Your task to perform on an android device: toggle javascript in the chrome app Image 0: 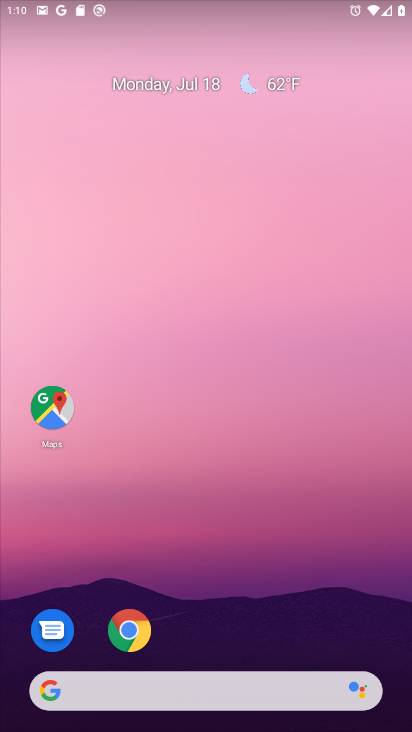
Step 0: click (127, 630)
Your task to perform on an android device: toggle javascript in the chrome app Image 1: 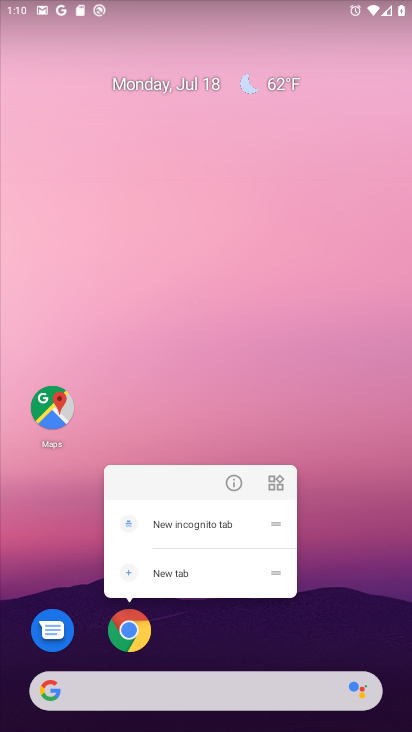
Step 1: click (127, 630)
Your task to perform on an android device: toggle javascript in the chrome app Image 2: 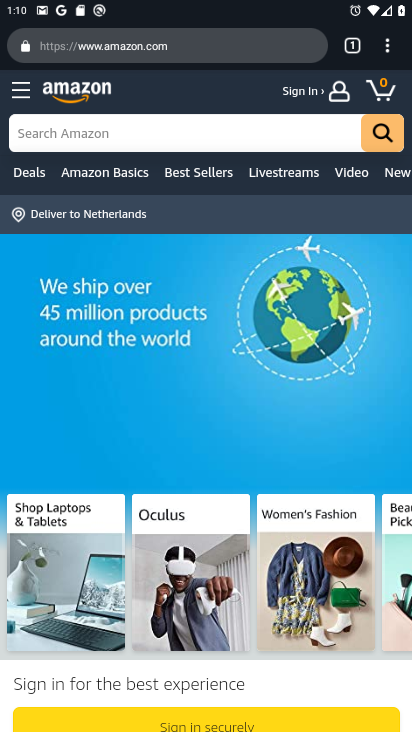
Step 2: click (385, 45)
Your task to perform on an android device: toggle javascript in the chrome app Image 3: 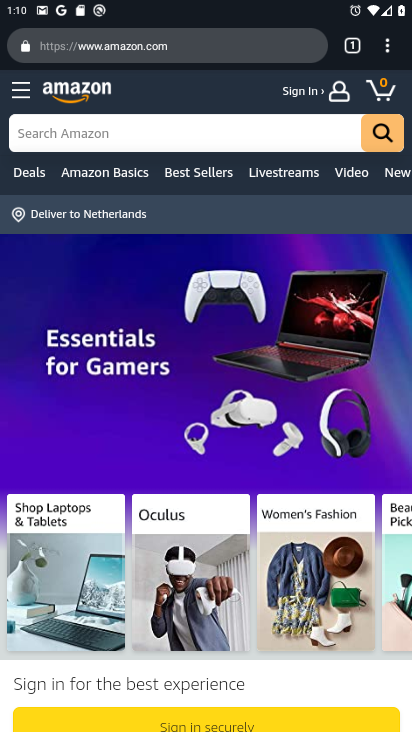
Step 3: click (384, 45)
Your task to perform on an android device: toggle javascript in the chrome app Image 4: 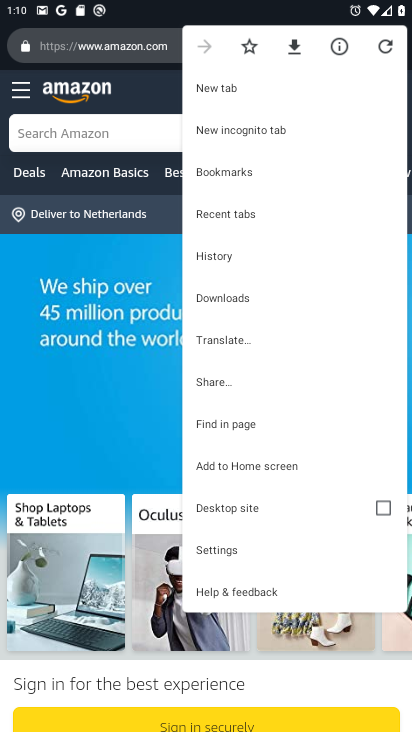
Step 4: click (203, 548)
Your task to perform on an android device: toggle javascript in the chrome app Image 5: 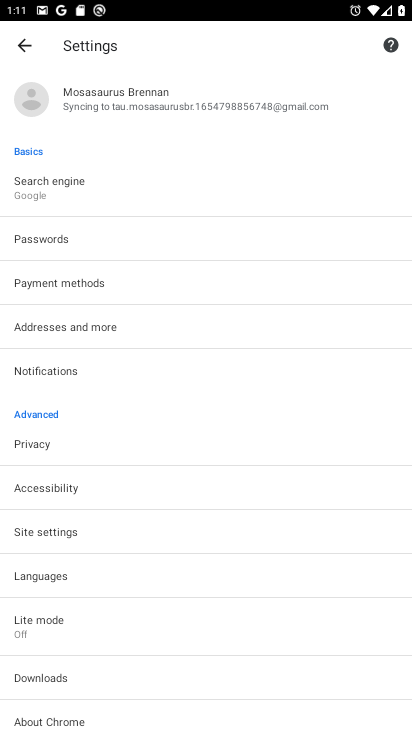
Step 5: click (63, 629)
Your task to perform on an android device: toggle javascript in the chrome app Image 6: 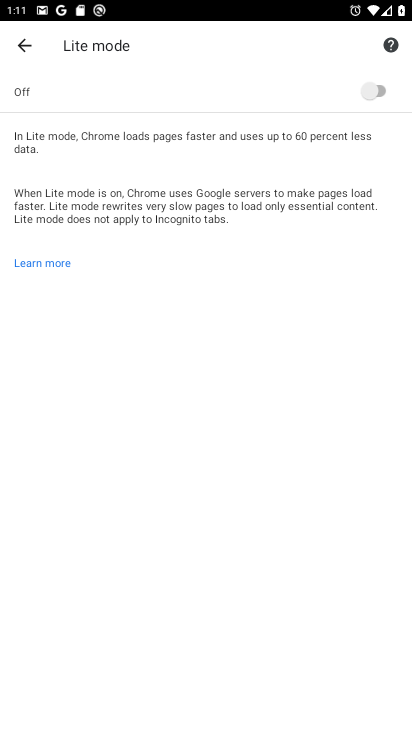
Step 6: click (21, 51)
Your task to perform on an android device: toggle javascript in the chrome app Image 7: 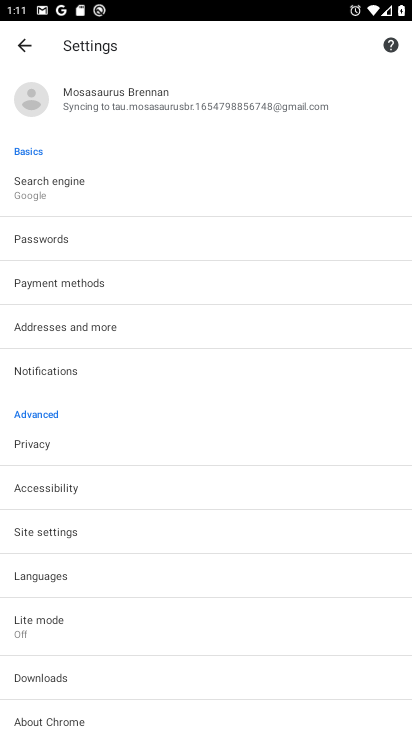
Step 7: click (47, 533)
Your task to perform on an android device: toggle javascript in the chrome app Image 8: 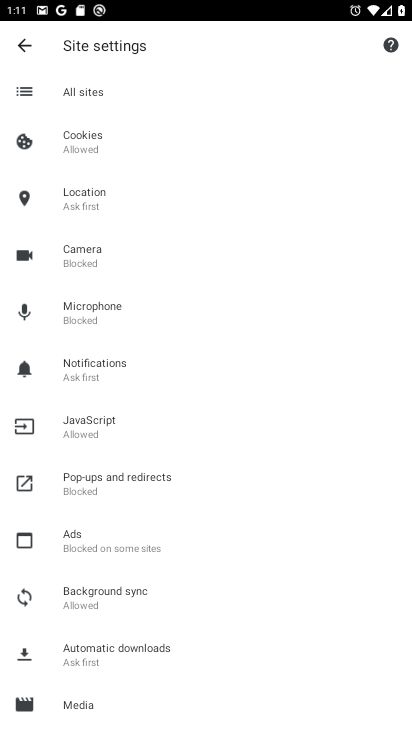
Step 8: click (94, 412)
Your task to perform on an android device: toggle javascript in the chrome app Image 9: 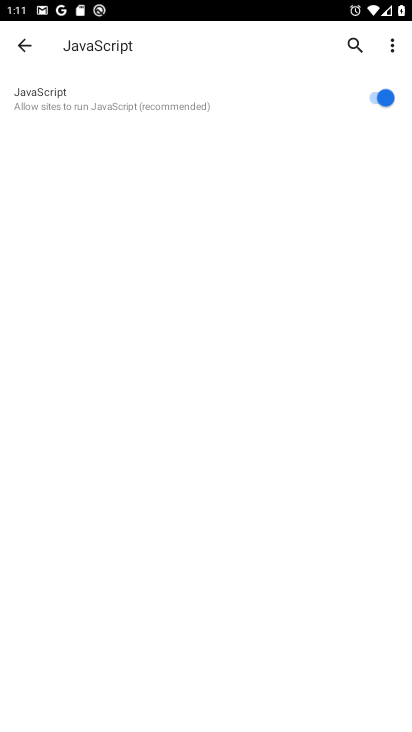
Step 9: click (383, 95)
Your task to perform on an android device: toggle javascript in the chrome app Image 10: 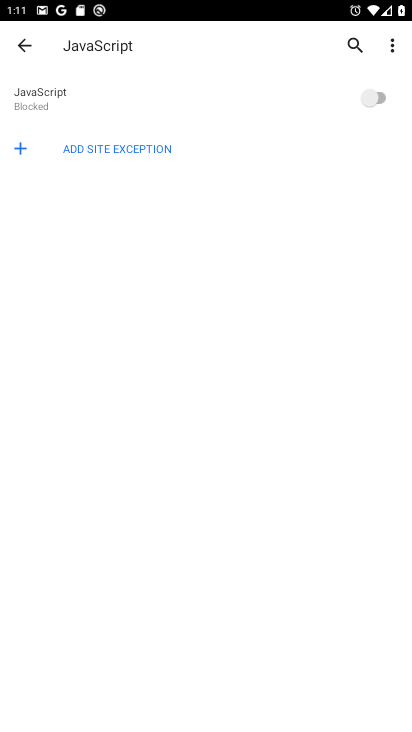
Step 10: task complete